Your task to perform on an android device: turn on javascript in the chrome app Image 0: 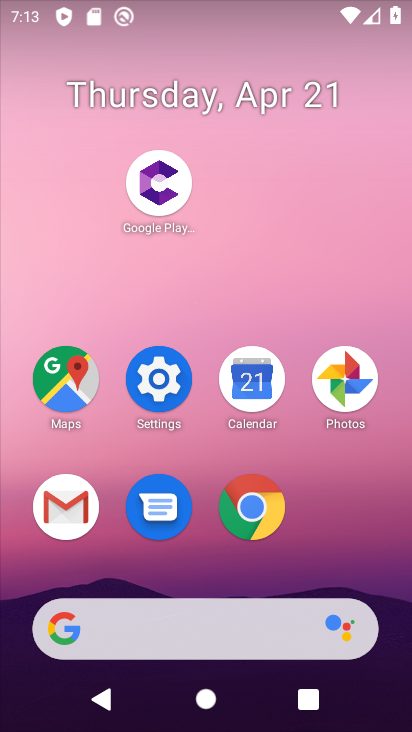
Step 0: click (258, 509)
Your task to perform on an android device: turn on javascript in the chrome app Image 1: 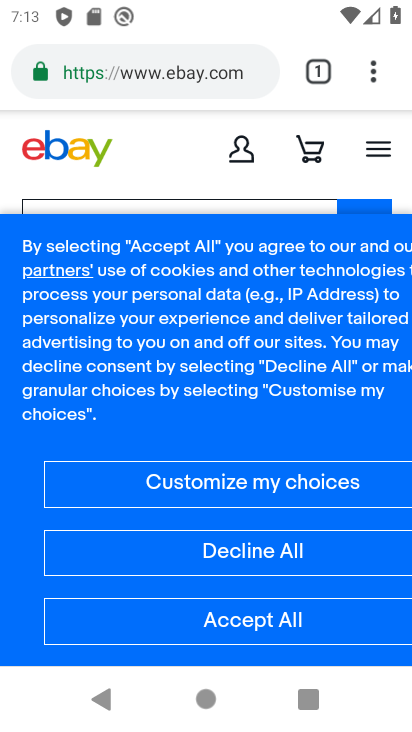
Step 1: click (374, 67)
Your task to perform on an android device: turn on javascript in the chrome app Image 2: 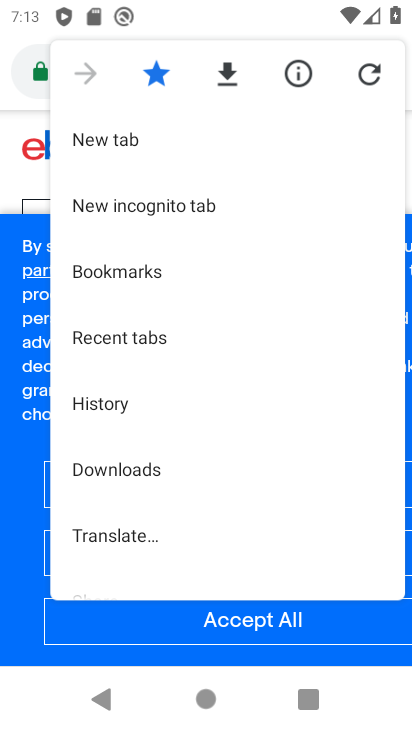
Step 2: drag from (188, 471) to (90, 23)
Your task to perform on an android device: turn on javascript in the chrome app Image 3: 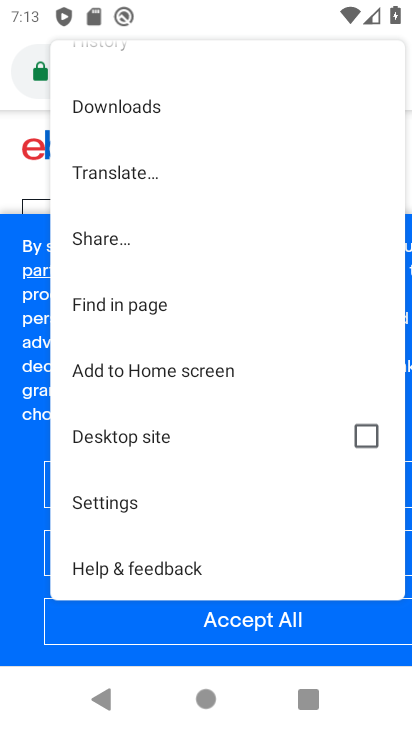
Step 3: click (111, 505)
Your task to perform on an android device: turn on javascript in the chrome app Image 4: 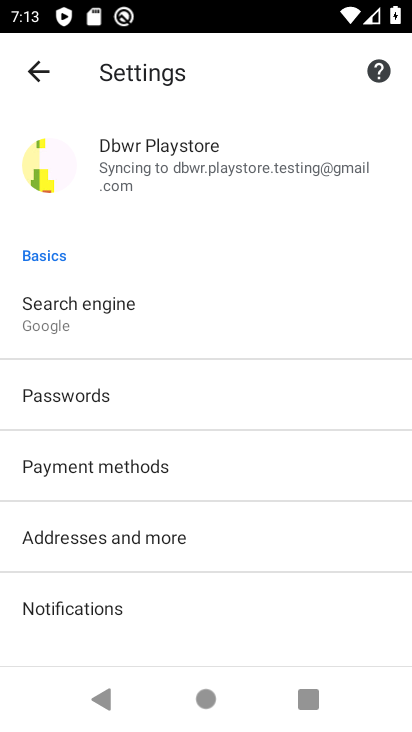
Step 4: drag from (256, 530) to (180, 122)
Your task to perform on an android device: turn on javascript in the chrome app Image 5: 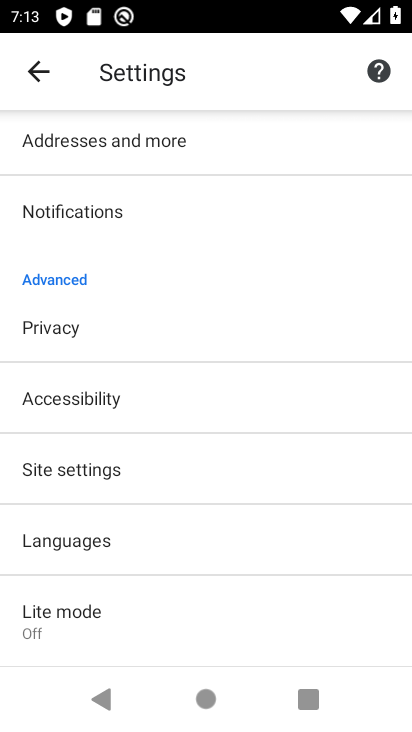
Step 5: click (78, 472)
Your task to perform on an android device: turn on javascript in the chrome app Image 6: 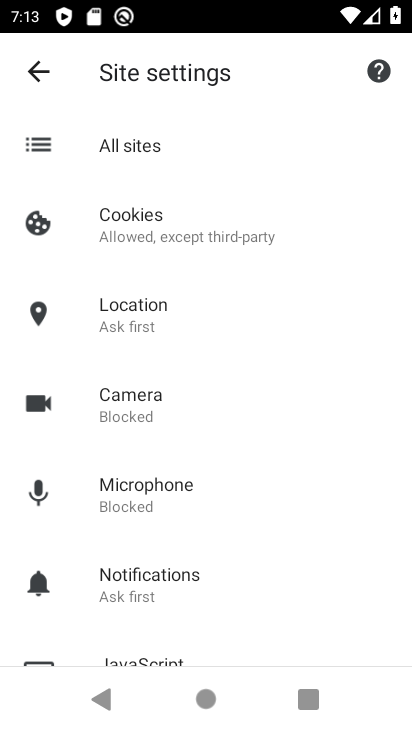
Step 6: drag from (292, 537) to (262, 276)
Your task to perform on an android device: turn on javascript in the chrome app Image 7: 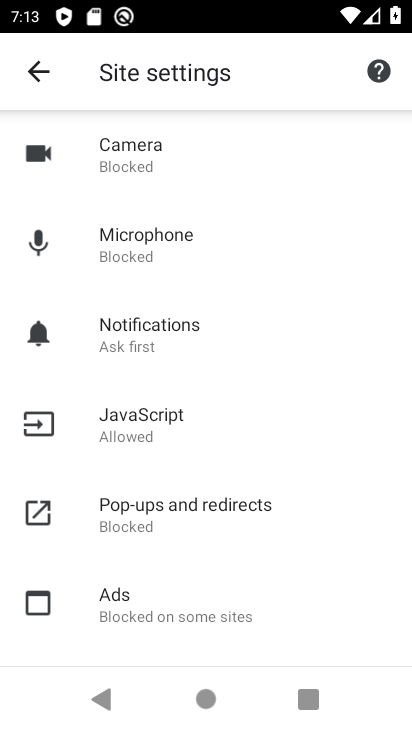
Step 7: click (143, 414)
Your task to perform on an android device: turn on javascript in the chrome app Image 8: 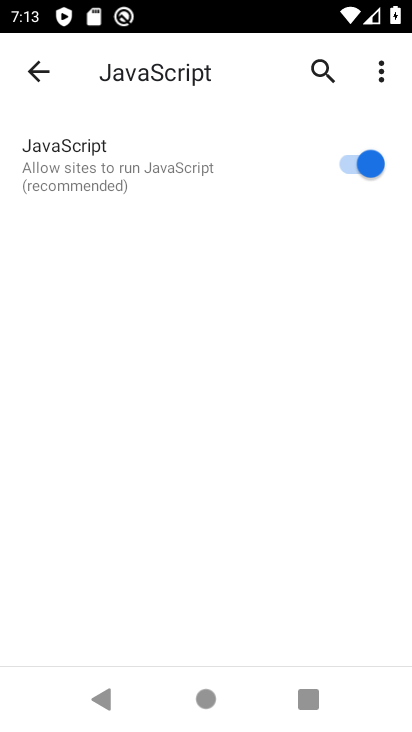
Step 8: task complete